Your task to perform on an android device: check out phone information Image 0: 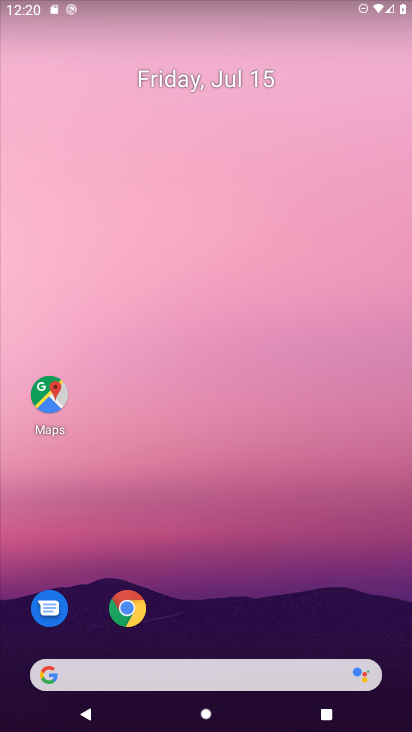
Step 0: drag from (297, 699) to (253, 14)
Your task to perform on an android device: check out phone information Image 1: 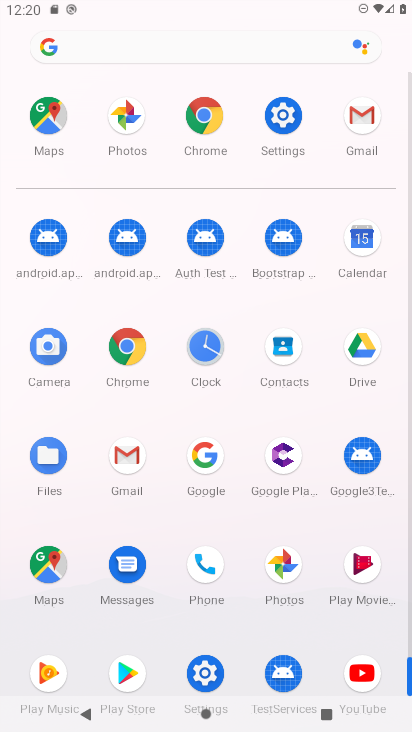
Step 1: click (290, 119)
Your task to perform on an android device: check out phone information Image 2: 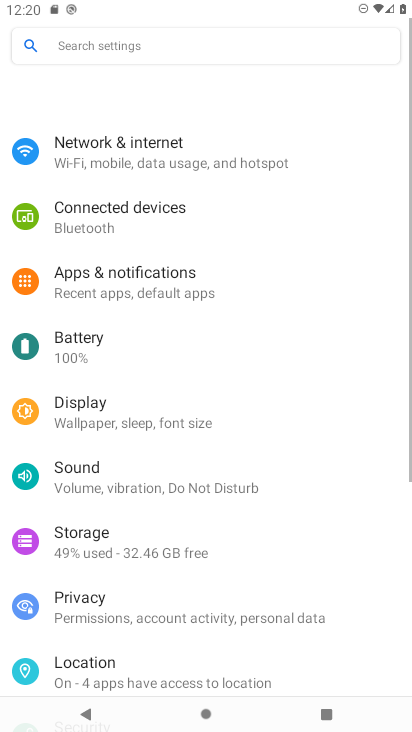
Step 2: drag from (308, 662) to (340, 120)
Your task to perform on an android device: check out phone information Image 3: 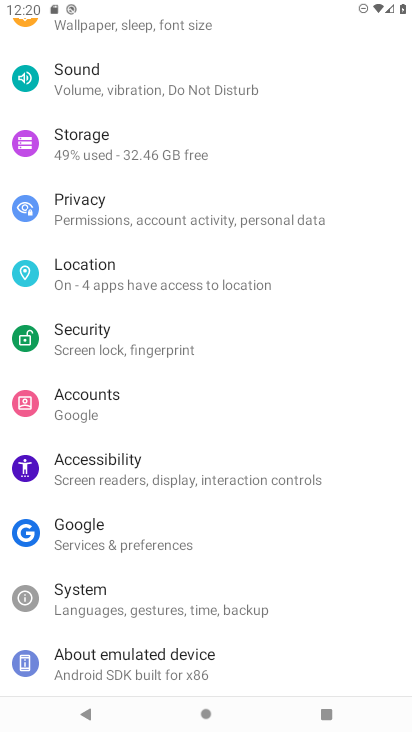
Step 3: click (239, 665)
Your task to perform on an android device: check out phone information Image 4: 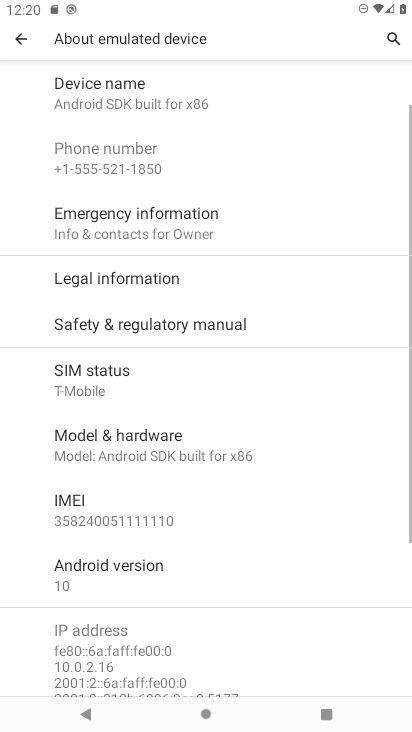
Step 4: task complete